Your task to perform on an android device: allow cookies in the chrome app Image 0: 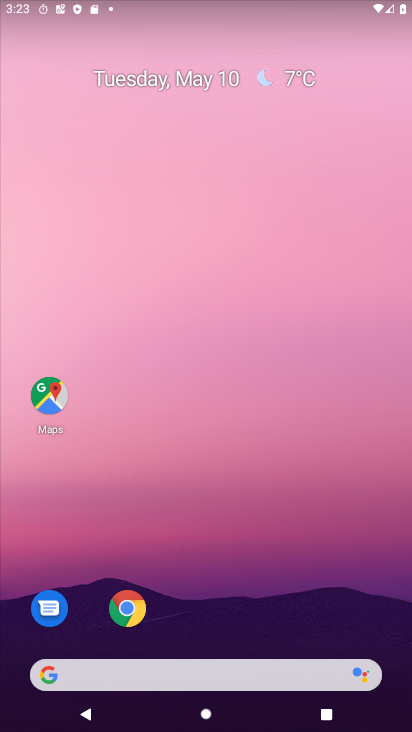
Step 0: click (135, 614)
Your task to perform on an android device: allow cookies in the chrome app Image 1: 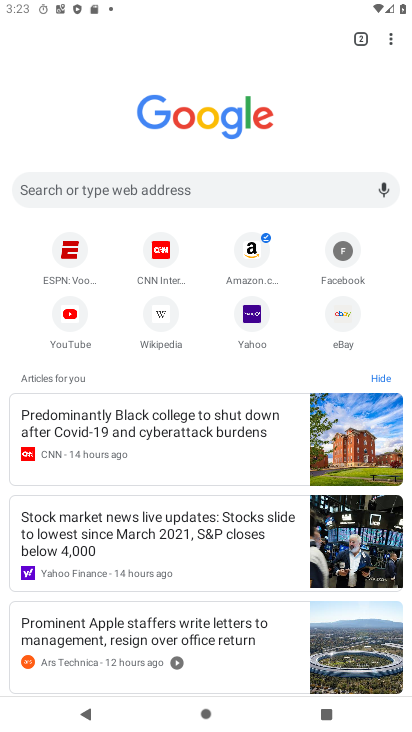
Step 1: drag from (386, 41) to (274, 325)
Your task to perform on an android device: allow cookies in the chrome app Image 2: 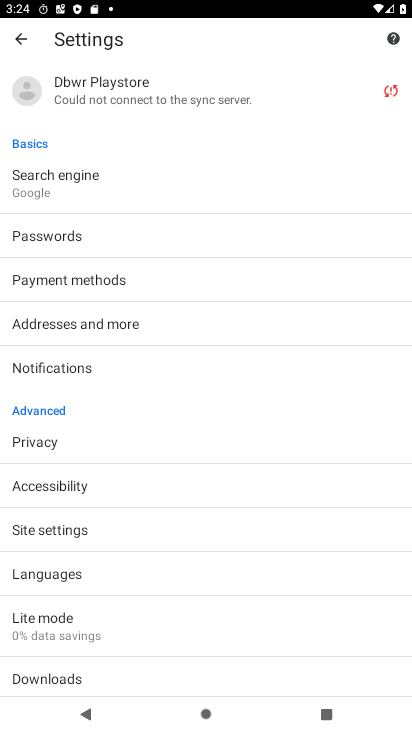
Step 2: click (62, 524)
Your task to perform on an android device: allow cookies in the chrome app Image 3: 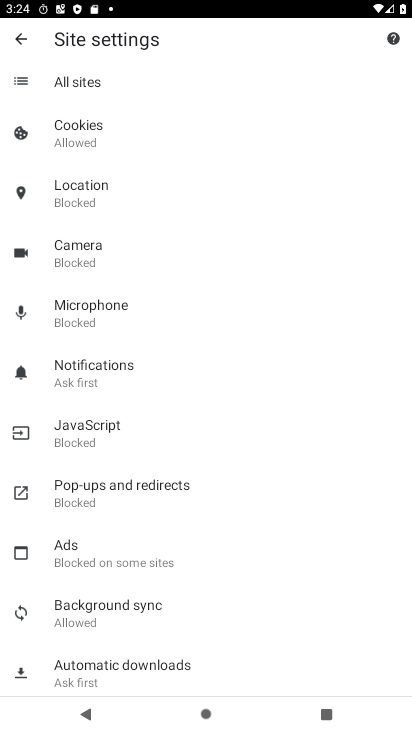
Step 3: click (79, 137)
Your task to perform on an android device: allow cookies in the chrome app Image 4: 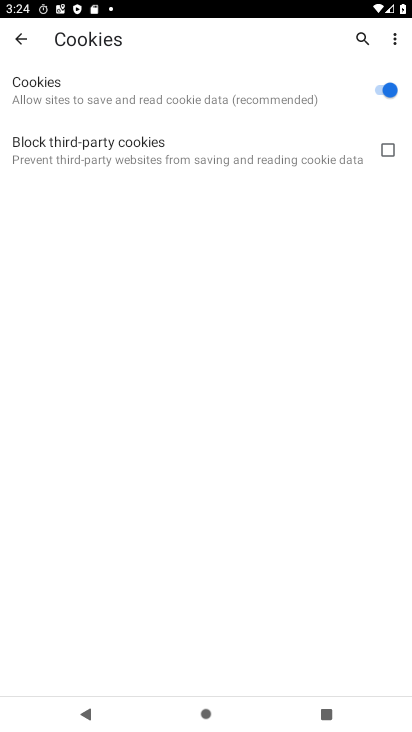
Step 4: task complete